Your task to perform on an android device: Open Android settings Image 0: 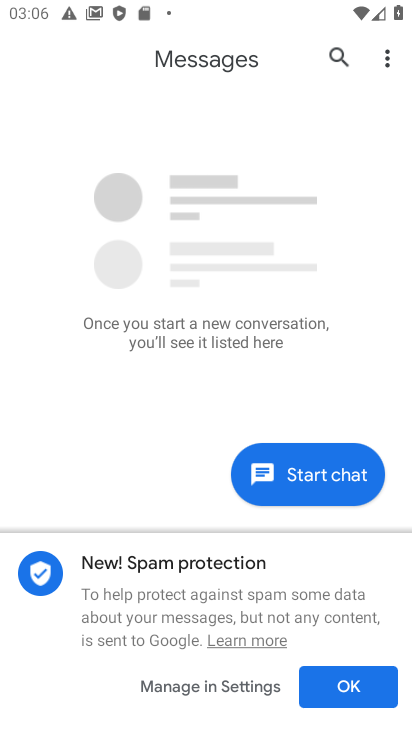
Step 0: press home button
Your task to perform on an android device: Open Android settings Image 1: 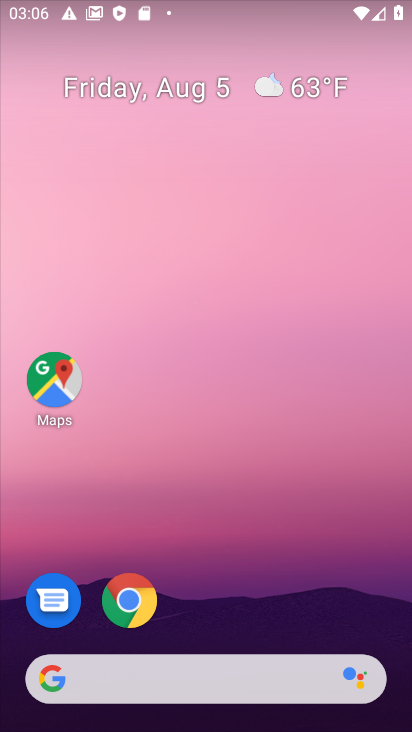
Step 1: drag from (192, 676) to (279, 97)
Your task to perform on an android device: Open Android settings Image 2: 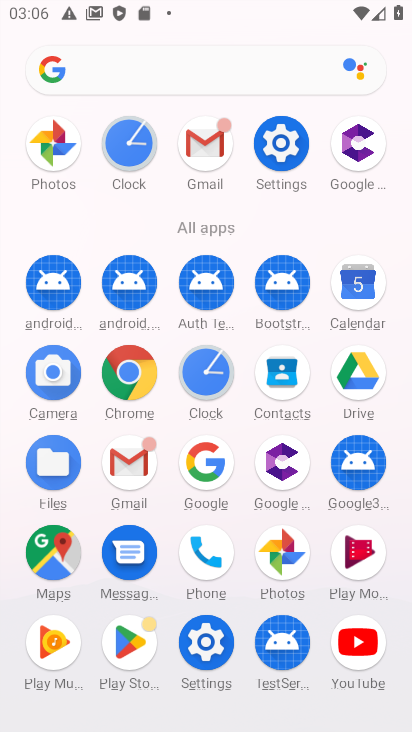
Step 2: click (279, 143)
Your task to perform on an android device: Open Android settings Image 3: 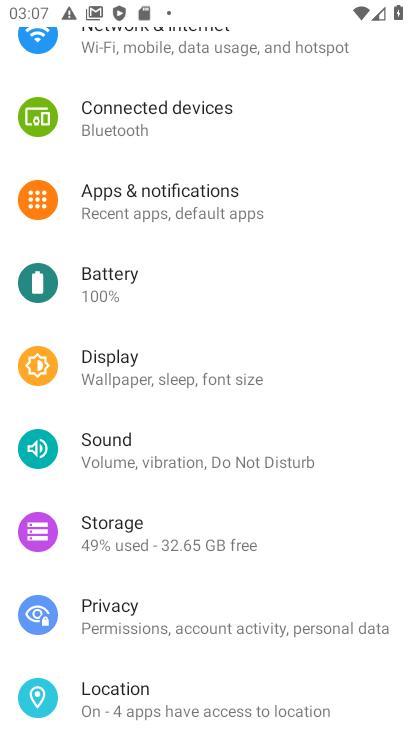
Step 3: task complete